Your task to perform on an android device: Open Chrome and go to the settings page Image 0: 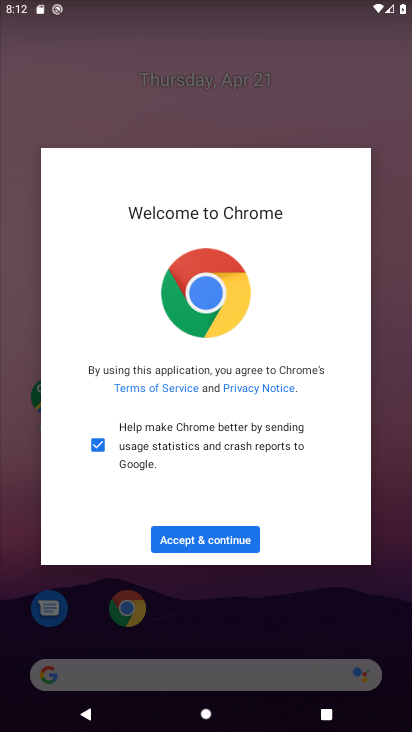
Step 0: click (185, 543)
Your task to perform on an android device: Open Chrome and go to the settings page Image 1: 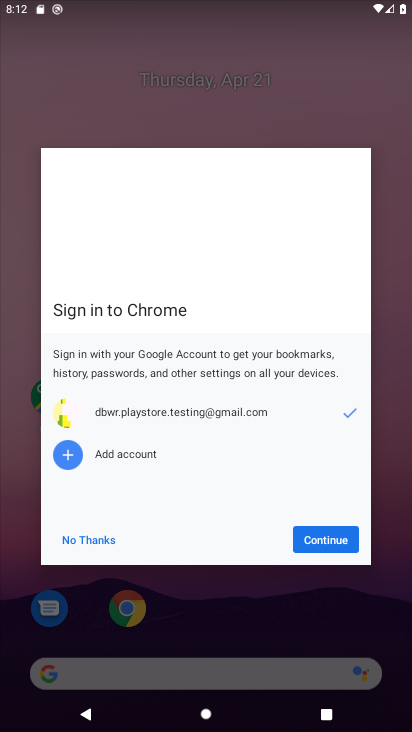
Step 1: click (312, 547)
Your task to perform on an android device: Open Chrome and go to the settings page Image 2: 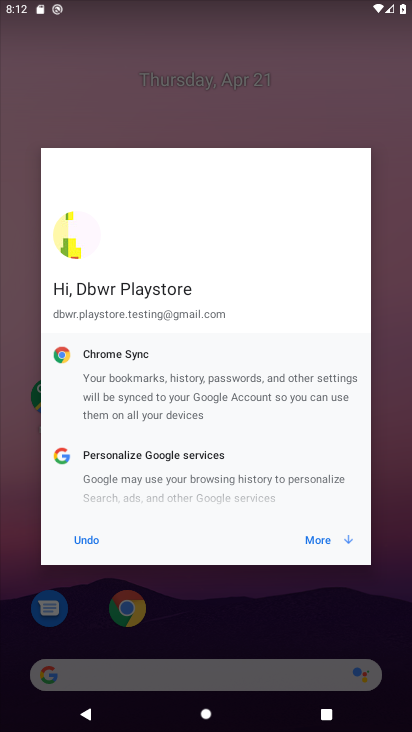
Step 2: click (316, 538)
Your task to perform on an android device: Open Chrome and go to the settings page Image 3: 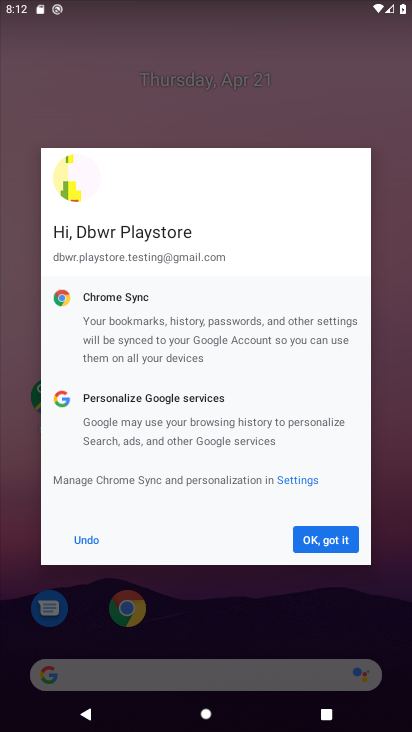
Step 3: click (323, 527)
Your task to perform on an android device: Open Chrome and go to the settings page Image 4: 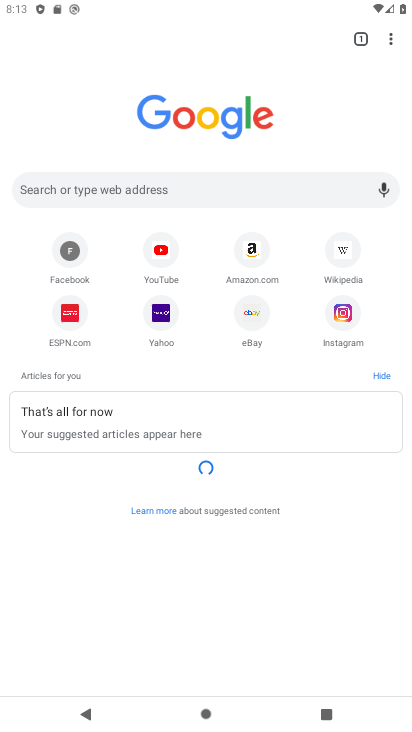
Step 4: click (389, 41)
Your task to perform on an android device: Open Chrome and go to the settings page Image 5: 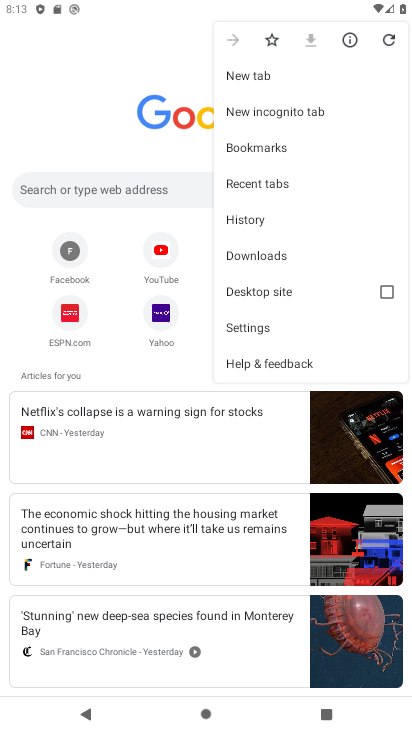
Step 5: click (254, 328)
Your task to perform on an android device: Open Chrome and go to the settings page Image 6: 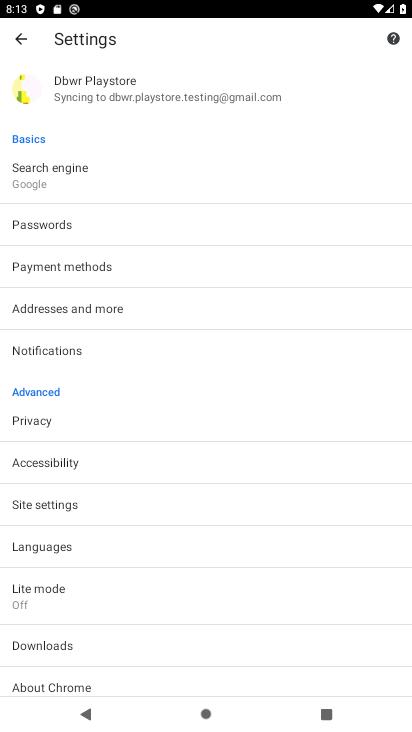
Step 6: task complete